Your task to perform on an android device: Search for "dell alienware" on costco, select the first entry, add it to the cart, then select checkout. Image 0: 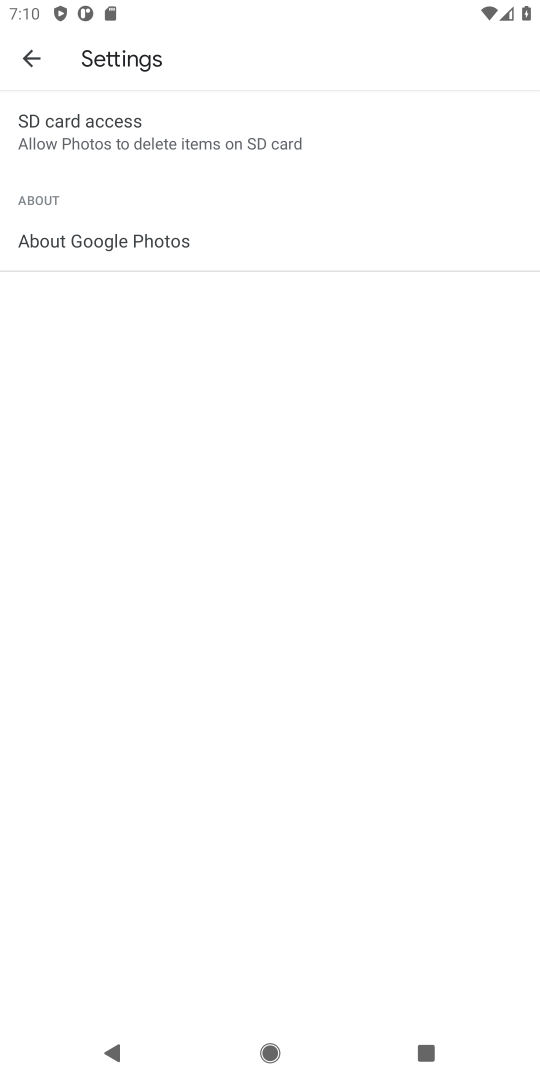
Step 0: press home button
Your task to perform on an android device: Search for "dell alienware" on costco, select the first entry, add it to the cart, then select checkout. Image 1: 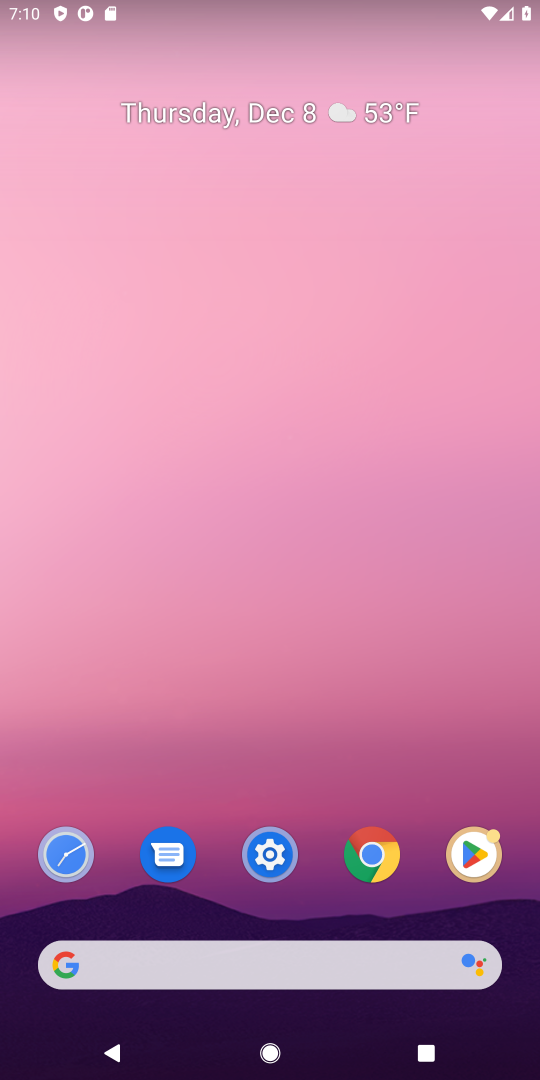
Step 1: click (92, 962)
Your task to perform on an android device: Search for "dell alienware" on costco, select the first entry, add it to the cart, then select checkout. Image 2: 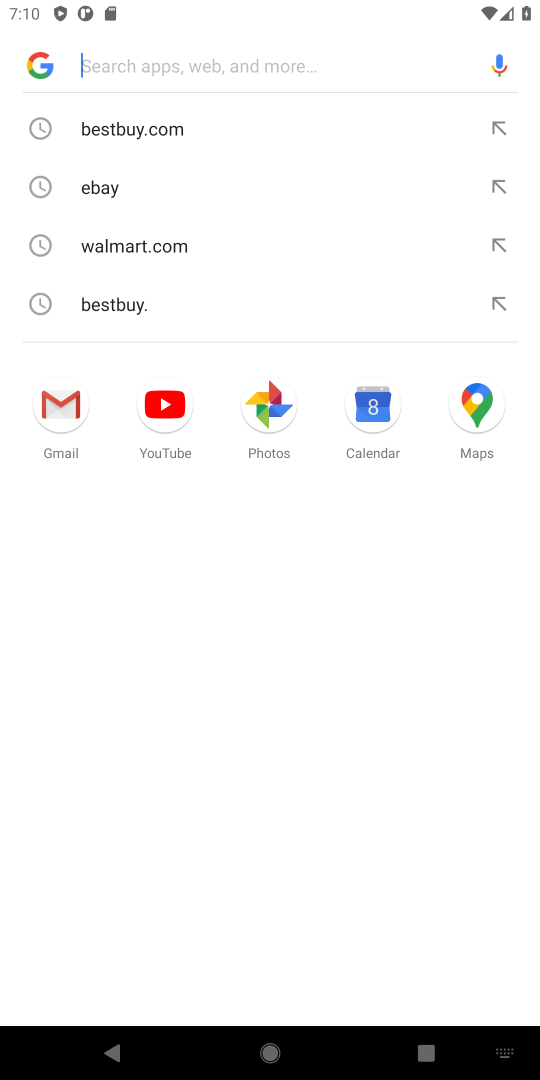
Step 2: type "costco"
Your task to perform on an android device: Search for "dell alienware" on costco, select the first entry, add it to the cart, then select checkout. Image 3: 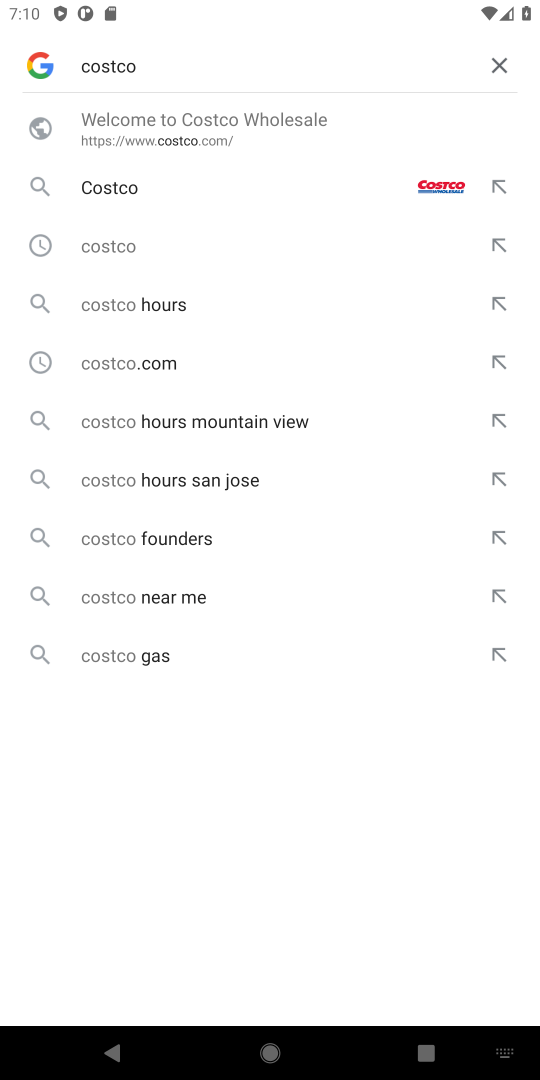
Step 3: press enter
Your task to perform on an android device: Search for "dell alienware" on costco, select the first entry, add it to the cart, then select checkout. Image 4: 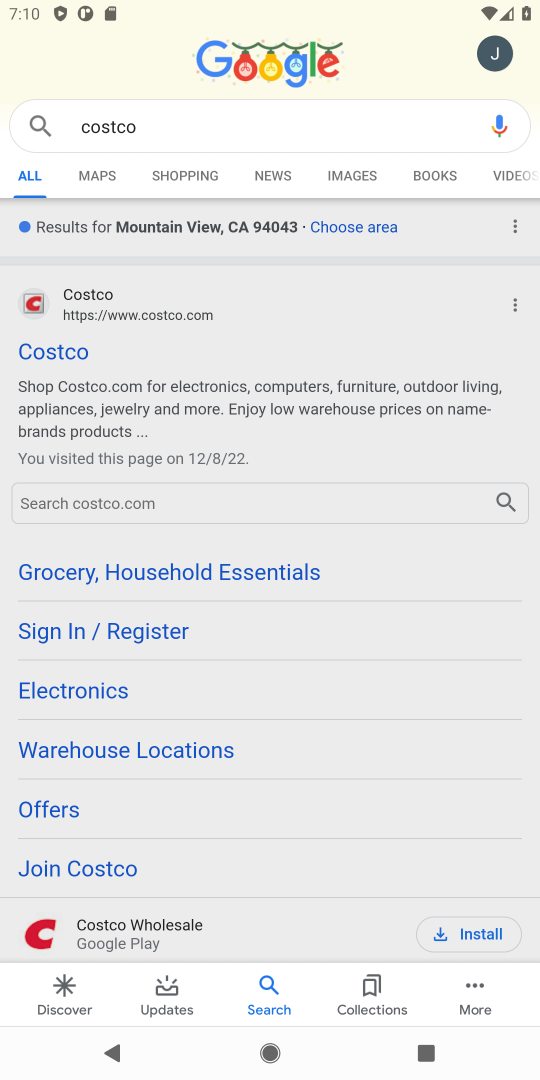
Step 4: click (51, 346)
Your task to perform on an android device: Search for "dell alienware" on costco, select the first entry, add it to the cart, then select checkout. Image 5: 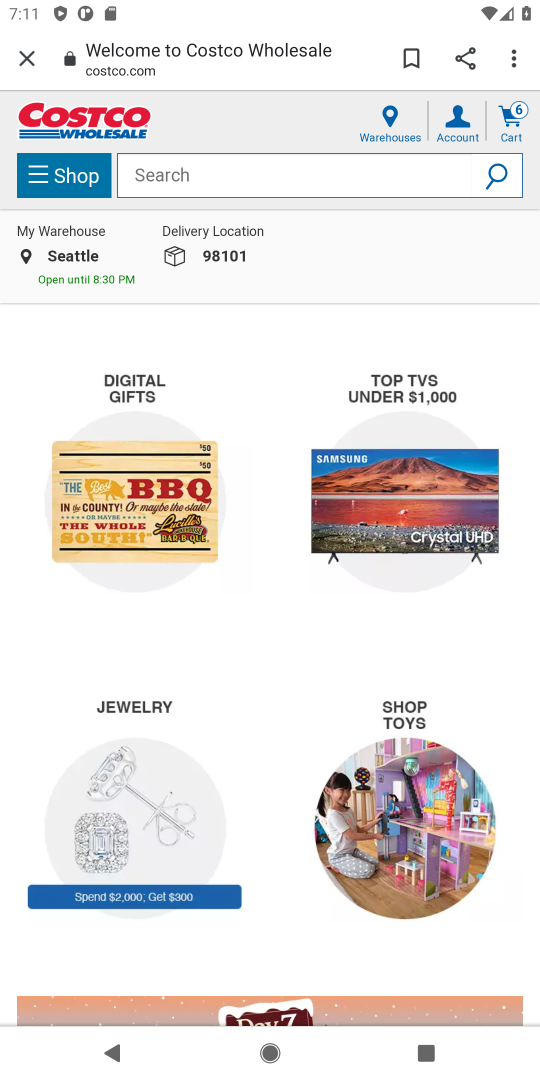
Step 5: click (150, 181)
Your task to perform on an android device: Search for "dell alienware" on costco, select the first entry, add it to the cart, then select checkout. Image 6: 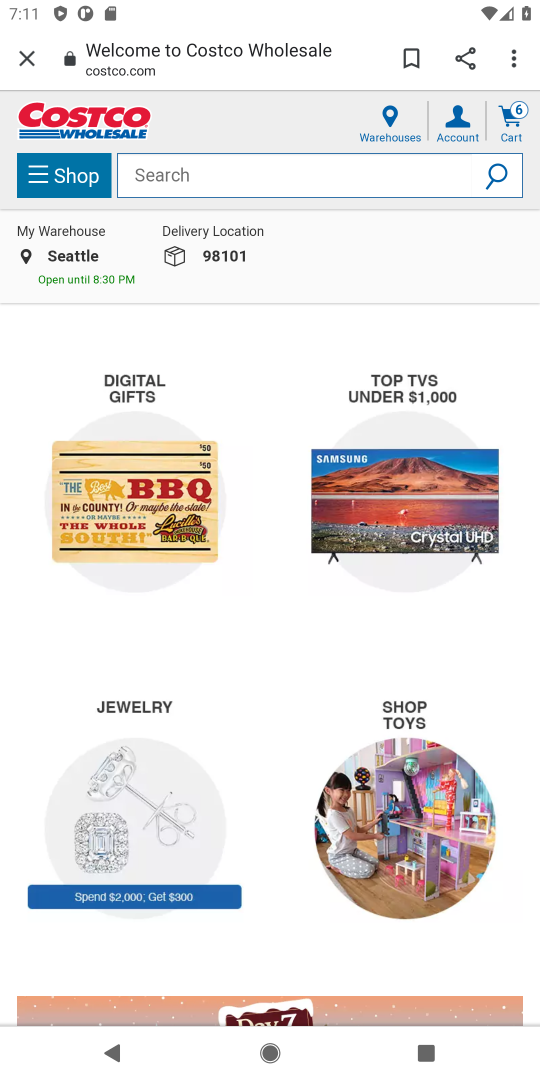
Step 6: click (168, 169)
Your task to perform on an android device: Search for "dell alienware" on costco, select the first entry, add it to the cart, then select checkout. Image 7: 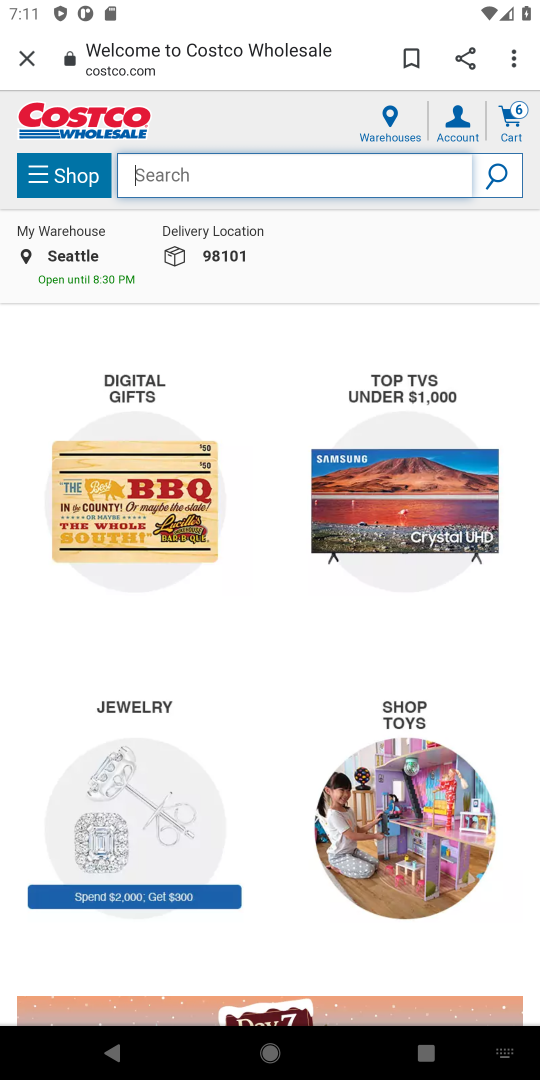
Step 7: type "dell alienware"
Your task to perform on an android device: Search for "dell alienware" on costco, select the first entry, add it to the cart, then select checkout. Image 8: 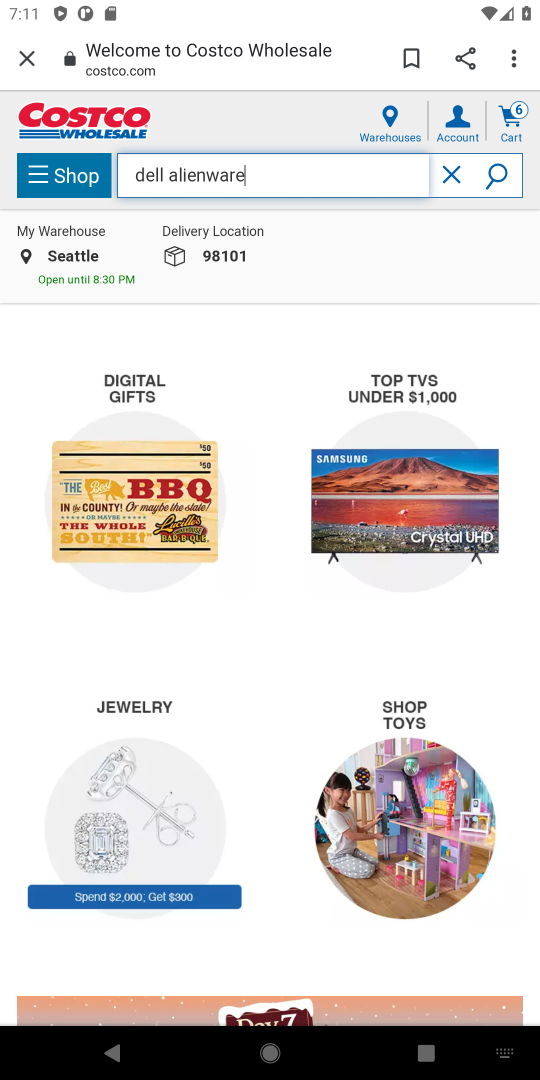
Step 8: press enter
Your task to perform on an android device: Search for "dell alienware" on costco, select the first entry, add it to the cart, then select checkout. Image 9: 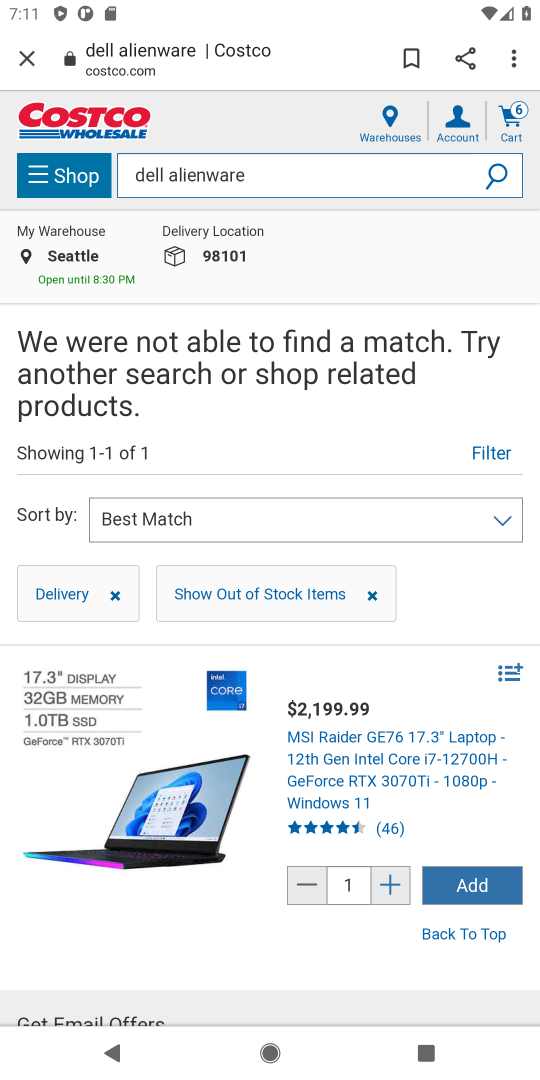
Step 9: task complete